Your task to perform on an android device: Find coffee shops on Maps Image 0: 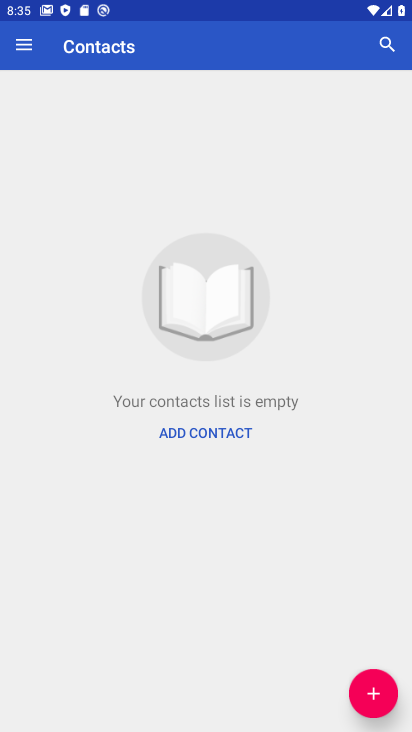
Step 0: press home button
Your task to perform on an android device: Find coffee shops on Maps Image 1: 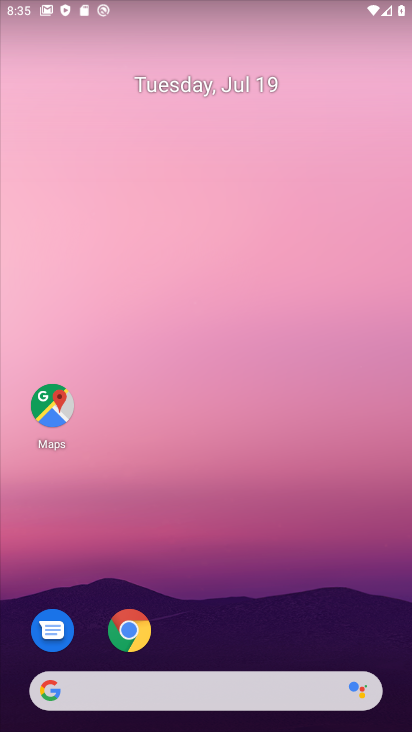
Step 1: click (62, 399)
Your task to perform on an android device: Find coffee shops on Maps Image 2: 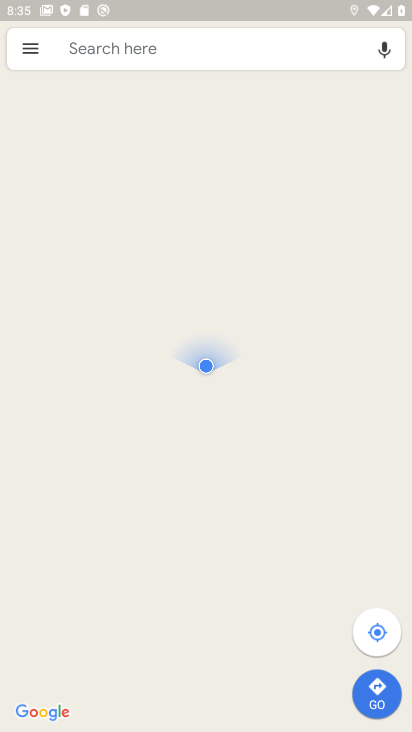
Step 2: click (124, 57)
Your task to perform on an android device: Find coffee shops on Maps Image 3: 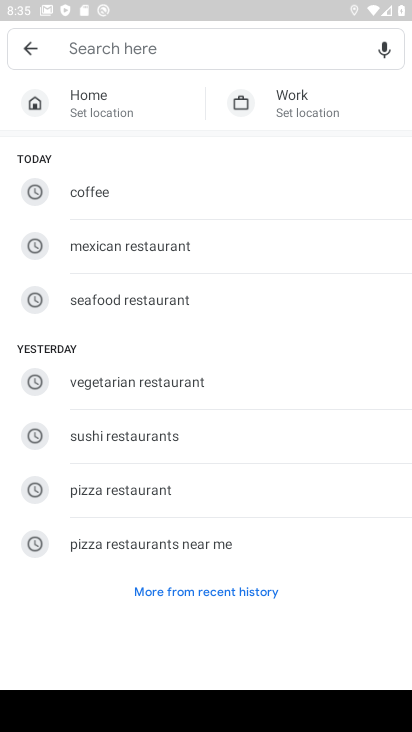
Step 3: type "coffee shopa"
Your task to perform on an android device: Find coffee shops on Maps Image 4: 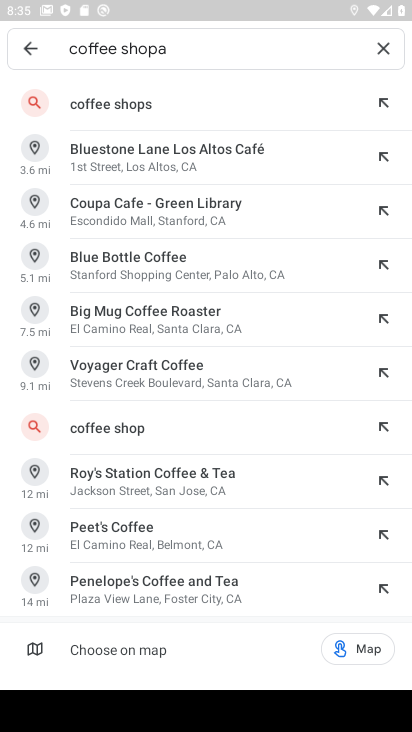
Step 4: click (123, 107)
Your task to perform on an android device: Find coffee shops on Maps Image 5: 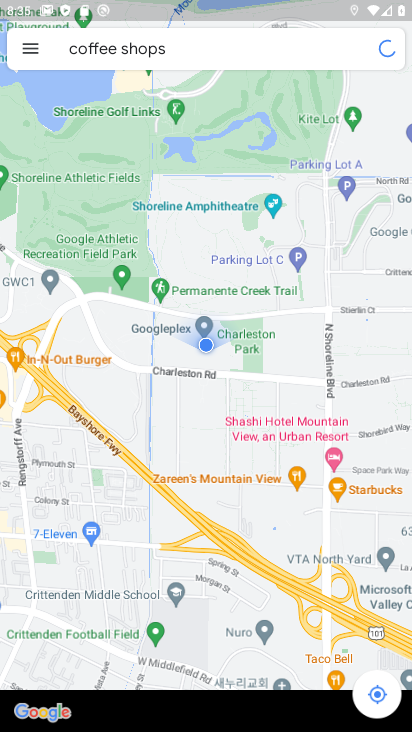
Step 5: click (123, 107)
Your task to perform on an android device: Find coffee shops on Maps Image 6: 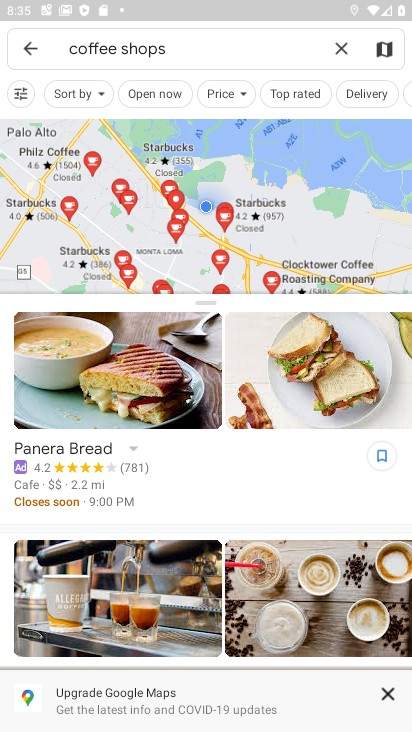
Step 6: task complete